Your task to perform on an android device: Show me popular games on the Play Store Image 0: 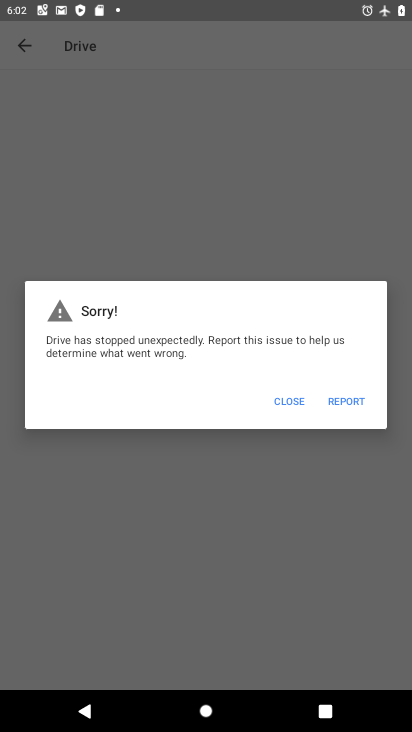
Step 0: press home button
Your task to perform on an android device: Show me popular games on the Play Store Image 1: 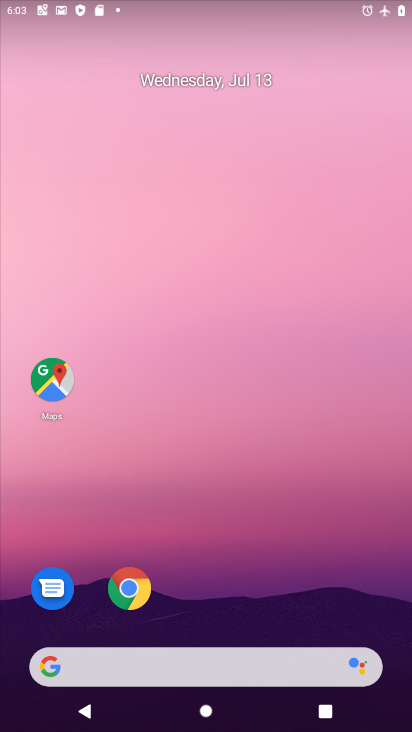
Step 1: drag from (188, 585) to (215, 43)
Your task to perform on an android device: Show me popular games on the Play Store Image 2: 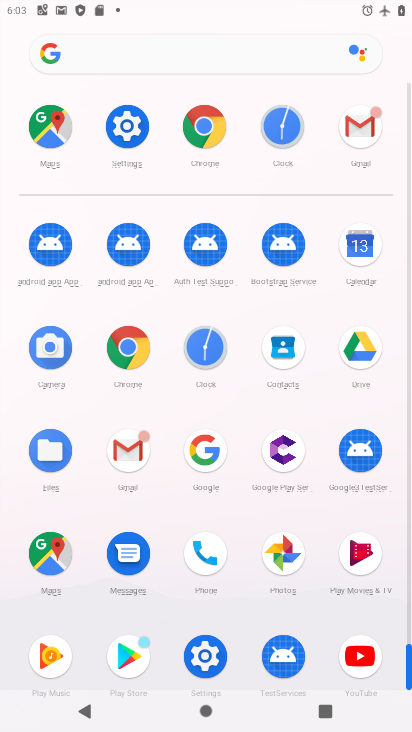
Step 2: click (127, 659)
Your task to perform on an android device: Show me popular games on the Play Store Image 3: 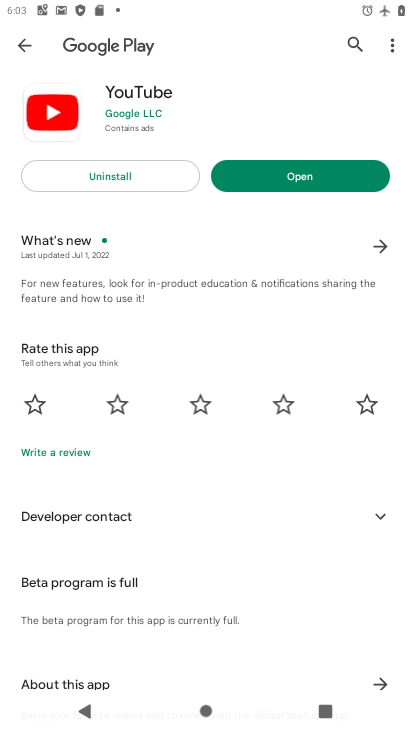
Step 3: click (22, 40)
Your task to perform on an android device: Show me popular games on the Play Store Image 4: 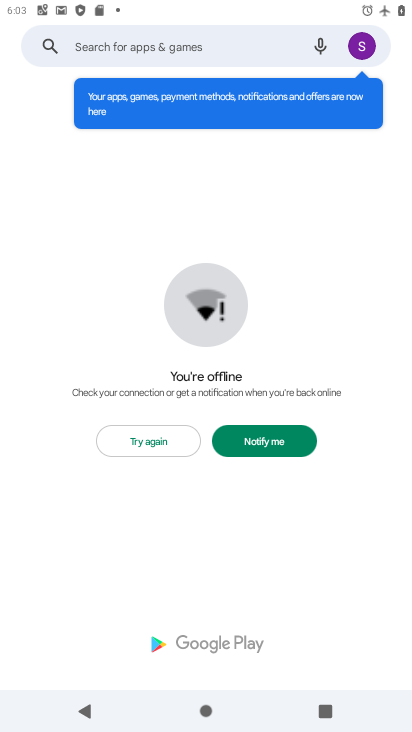
Step 4: press back button
Your task to perform on an android device: Show me popular games on the Play Store Image 5: 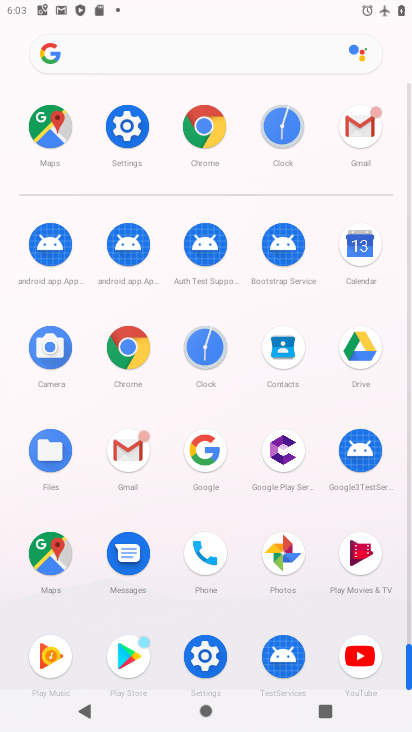
Step 5: click (133, 657)
Your task to perform on an android device: Show me popular games on the Play Store Image 6: 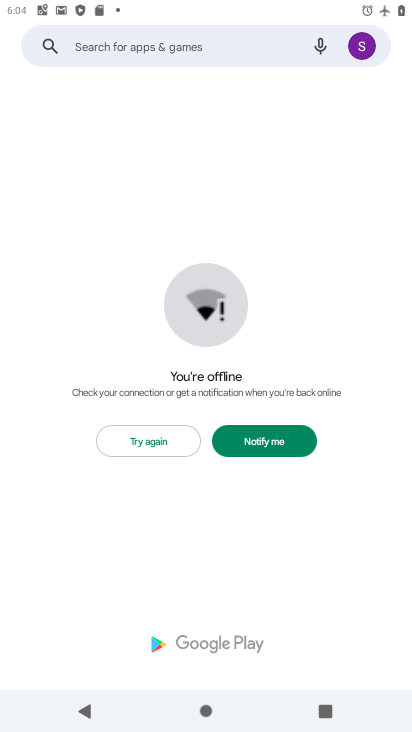
Step 6: task complete